Your task to perform on an android device: turn on airplane mode Image 0: 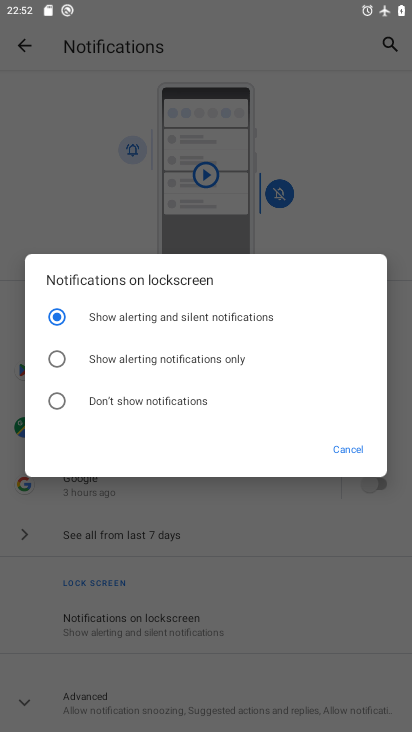
Step 0: press home button
Your task to perform on an android device: turn on airplane mode Image 1: 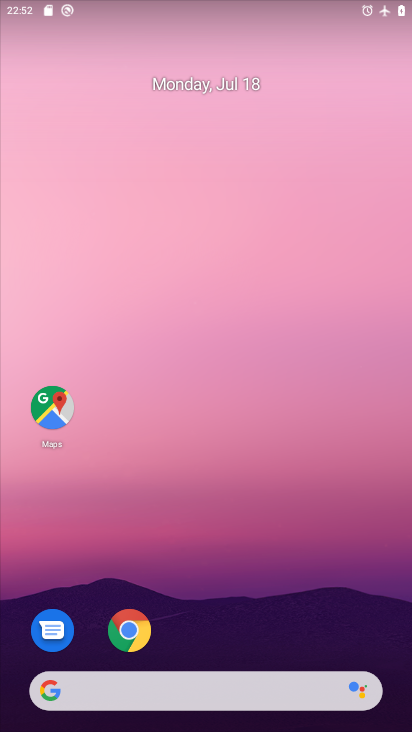
Step 1: drag from (181, 587) to (183, 285)
Your task to perform on an android device: turn on airplane mode Image 2: 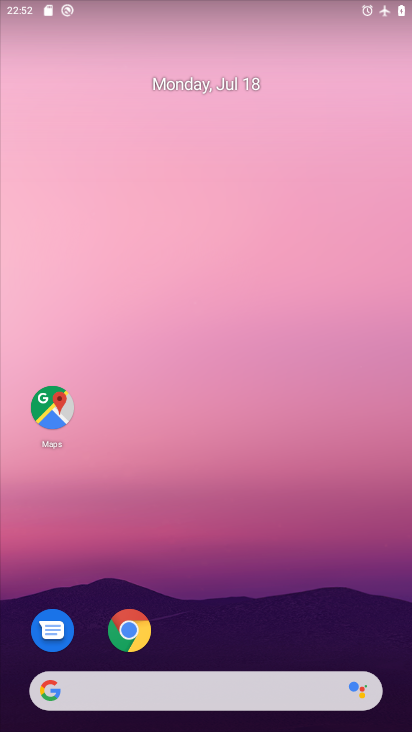
Step 2: drag from (252, 374) to (247, 185)
Your task to perform on an android device: turn on airplane mode Image 3: 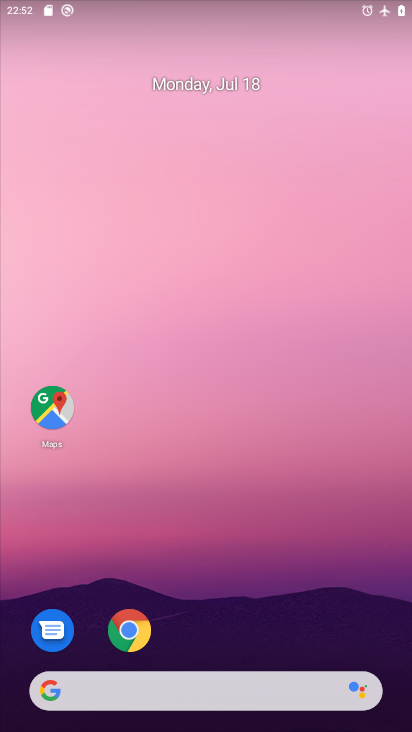
Step 3: drag from (258, 635) to (239, 289)
Your task to perform on an android device: turn on airplane mode Image 4: 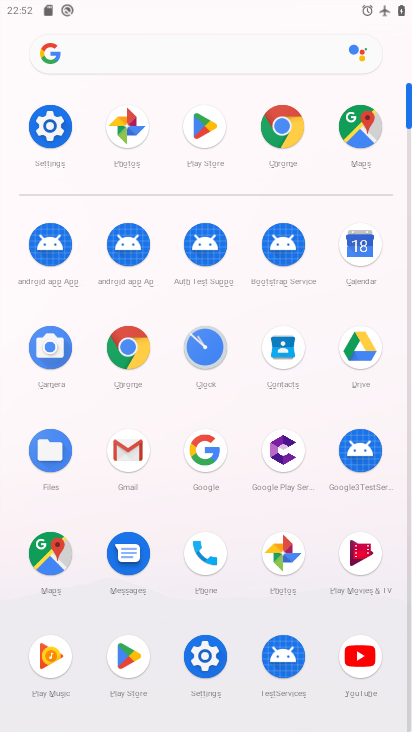
Step 4: click (49, 132)
Your task to perform on an android device: turn on airplane mode Image 5: 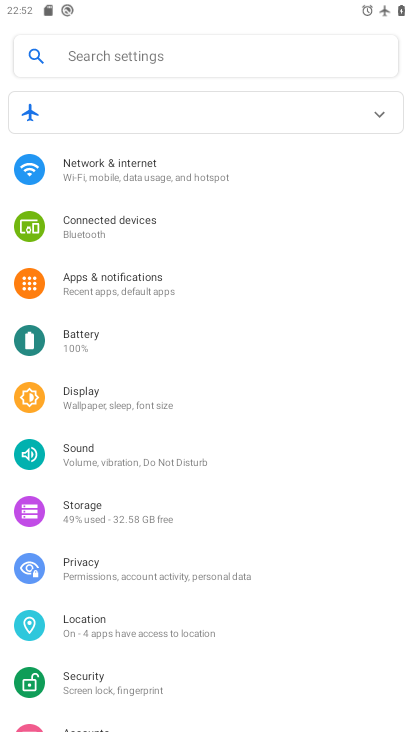
Step 5: click (143, 174)
Your task to perform on an android device: turn on airplane mode Image 6: 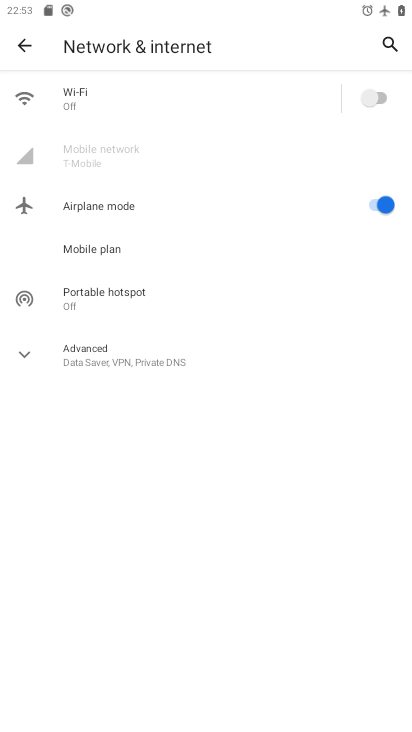
Step 6: task complete